Your task to perform on an android device: open the mobile data screen to see how much data has been used Image 0: 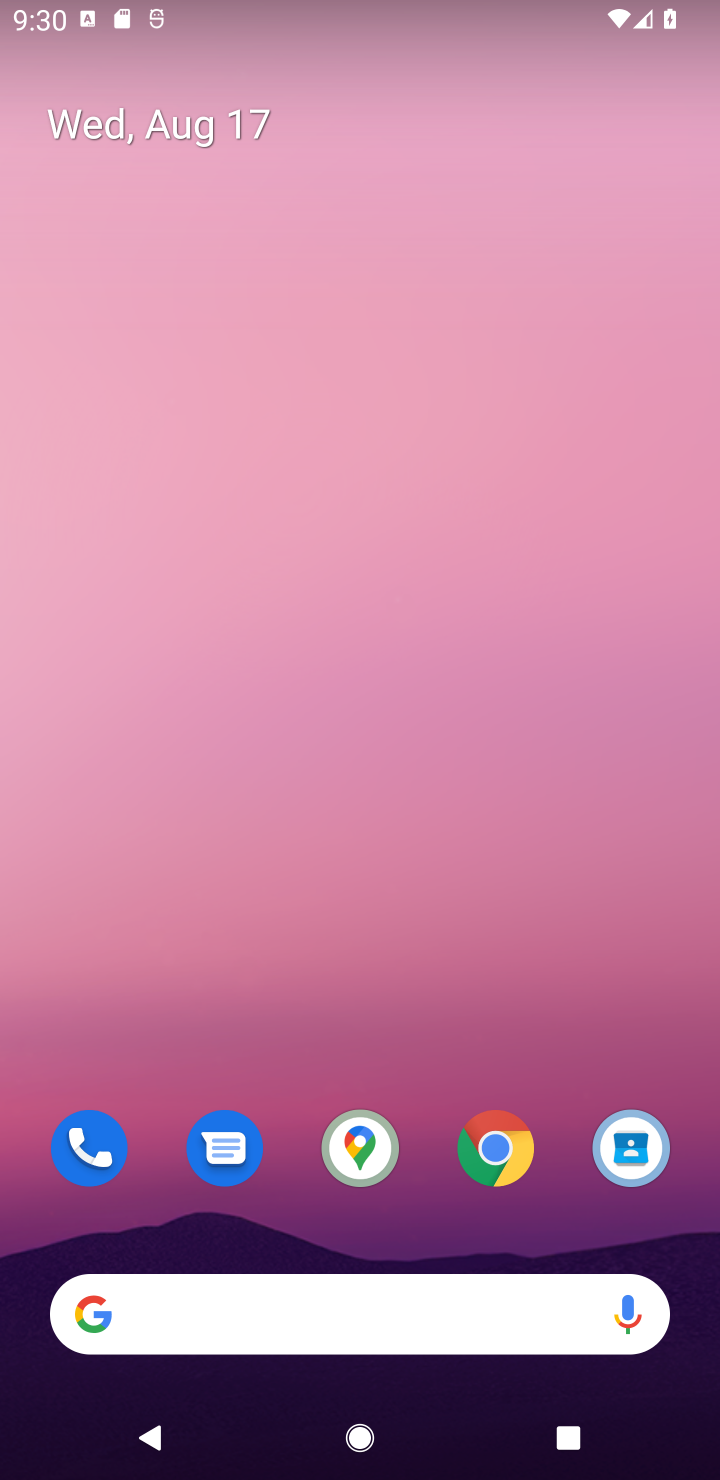
Step 0: drag from (439, 1228) to (466, 89)
Your task to perform on an android device: open the mobile data screen to see how much data has been used Image 1: 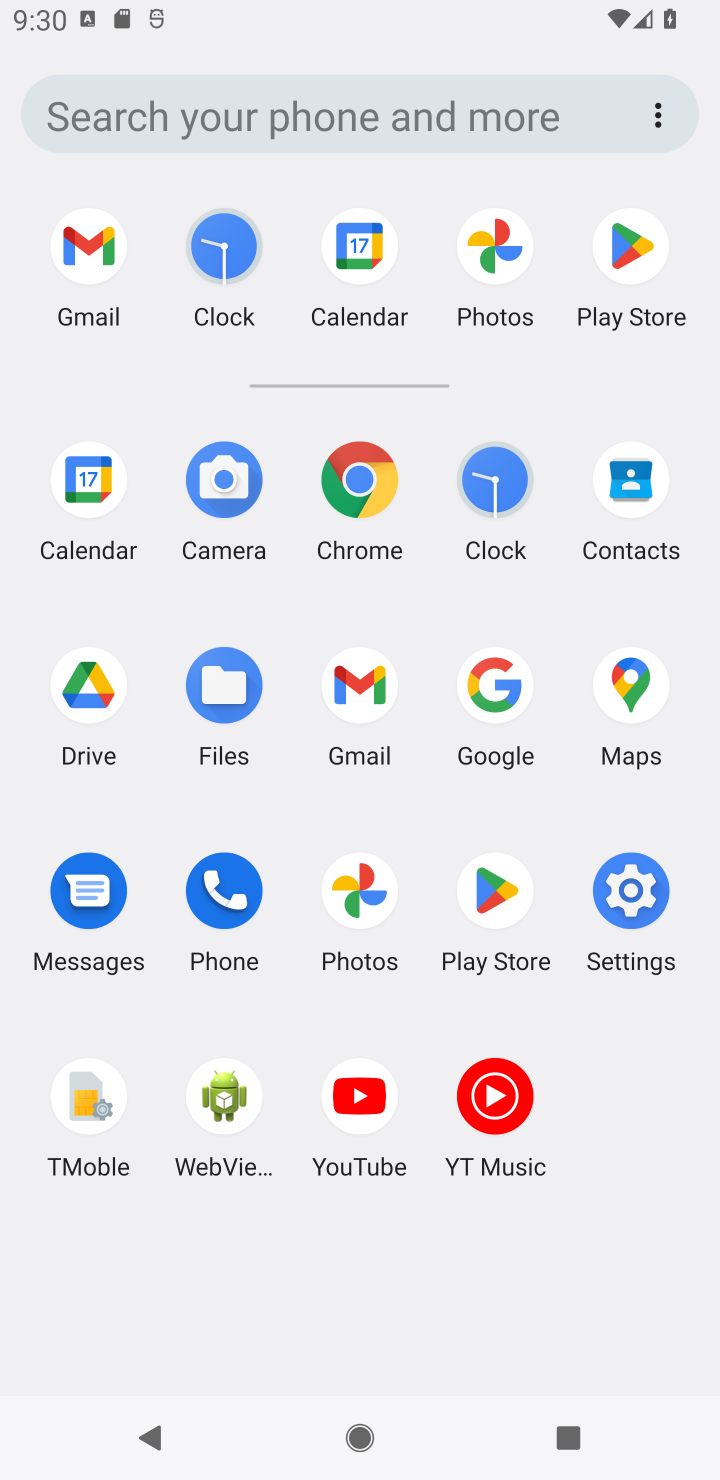
Step 1: click (634, 894)
Your task to perform on an android device: open the mobile data screen to see how much data has been used Image 2: 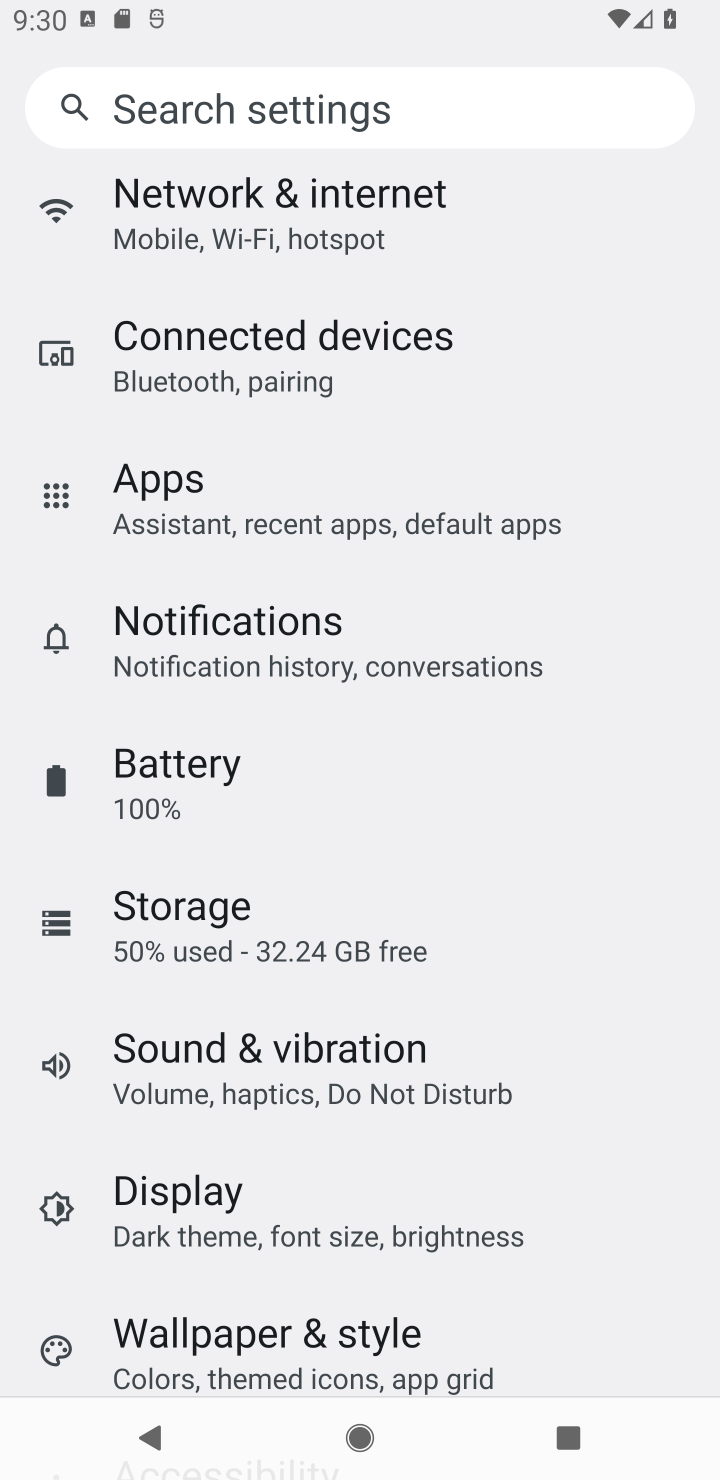
Step 2: click (220, 195)
Your task to perform on an android device: open the mobile data screen to see how much data has been used Image 3: 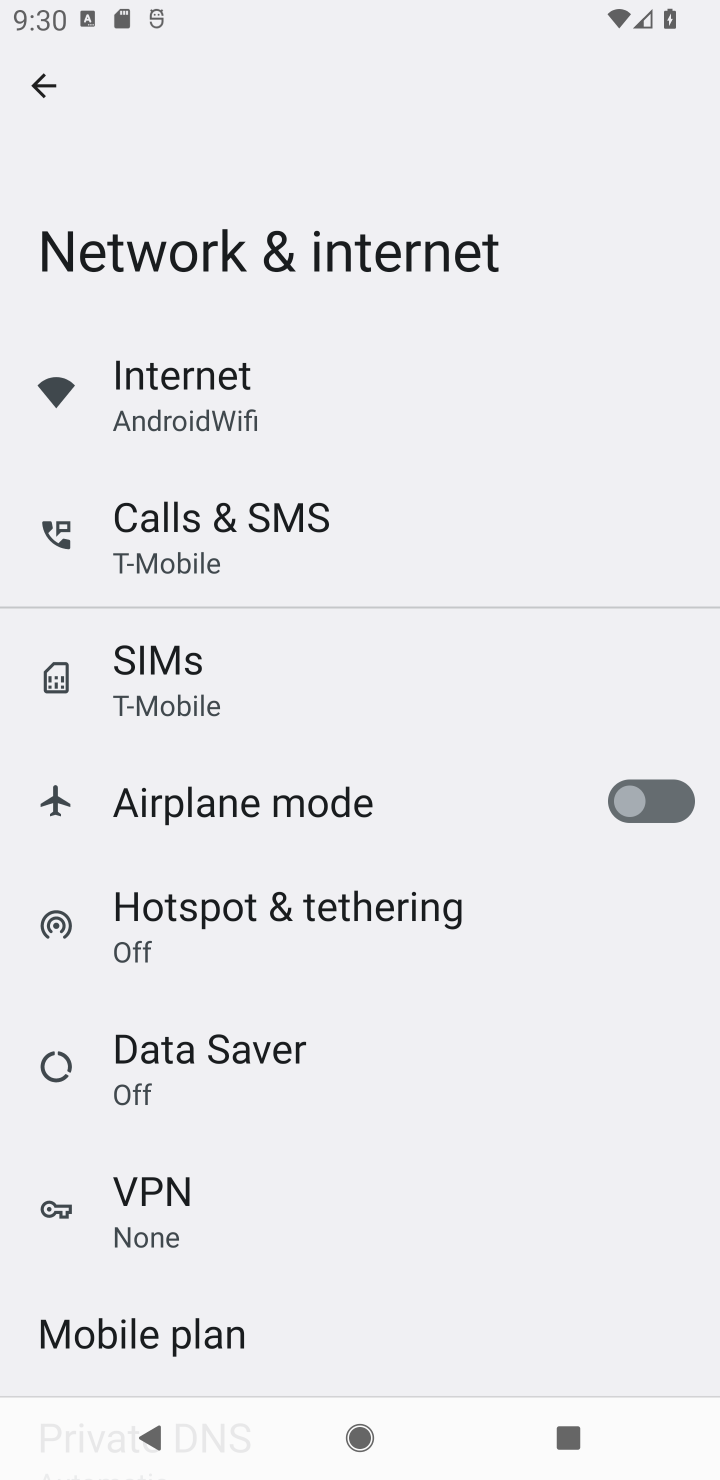
Step 3: click (209, 374)
Your task to perform on an android device: open the mobile data screen to see how much data has been used Image 4: 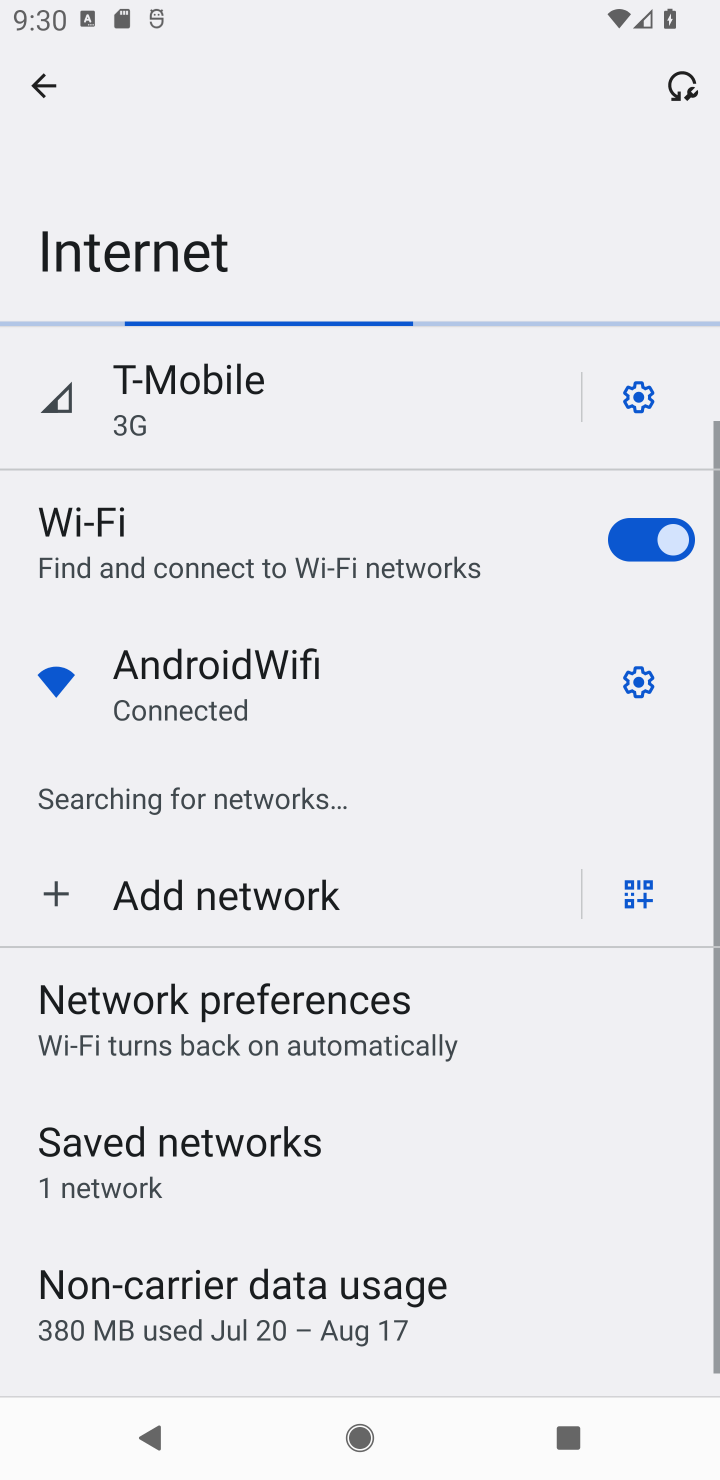
Step 4: click (634, 402)
Your task to perform on an android device: open the mobile data screen to see how much data has been used Image 5: 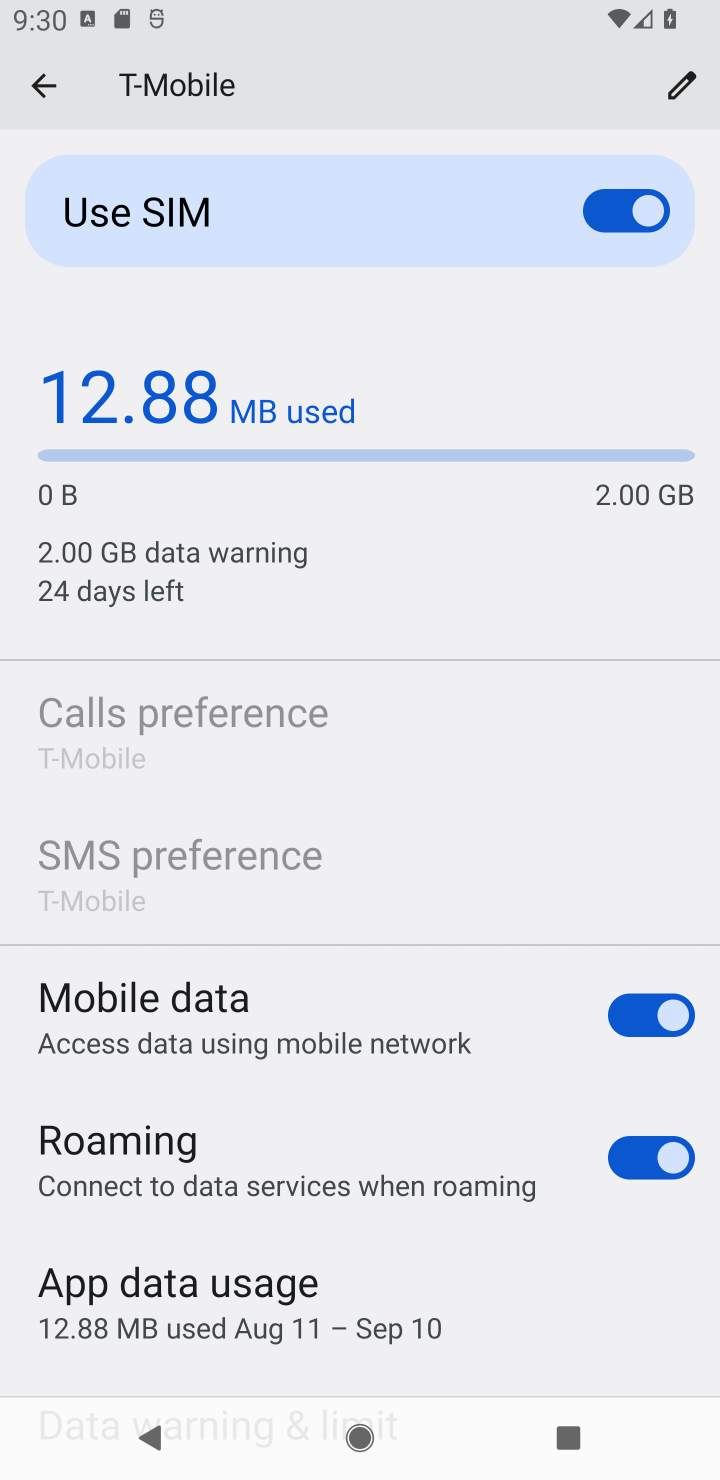
Step 5: task complete